Your task to perform on an android device: Open Google Chrome and open the bookmarks view Image 0: 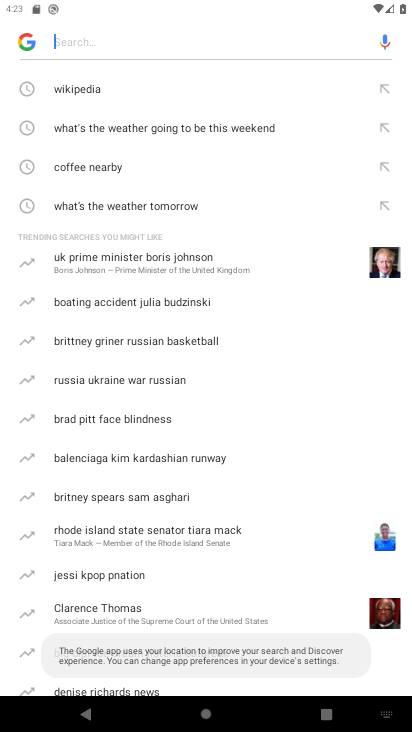
Step 0: press home button
Your task to perform on an android device: Open Google Chrome and open the bookmarks view Image 1: 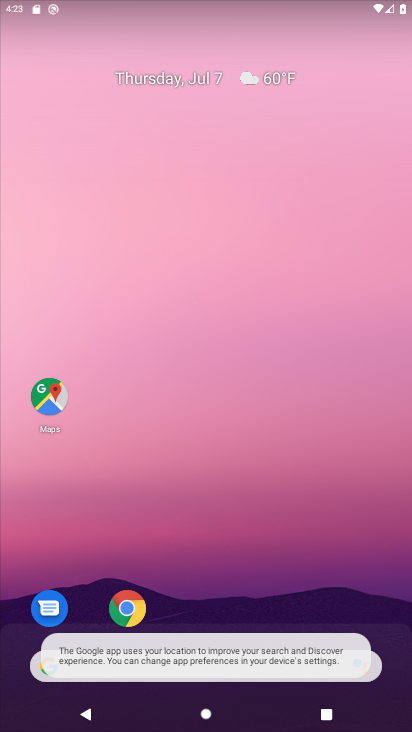
Step 1: drag from (187, 659) to (267, 143)
Your task to perform on an android device: Open Google Chrome and open the bookmarks view Image 2: 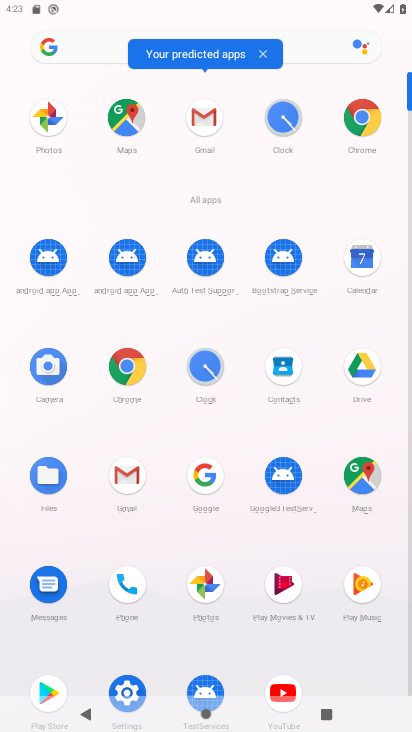
Step 2: click (127, 362)
Your task to perform on an android device: Open Google Chrome and open the bookmarks view Image 3: 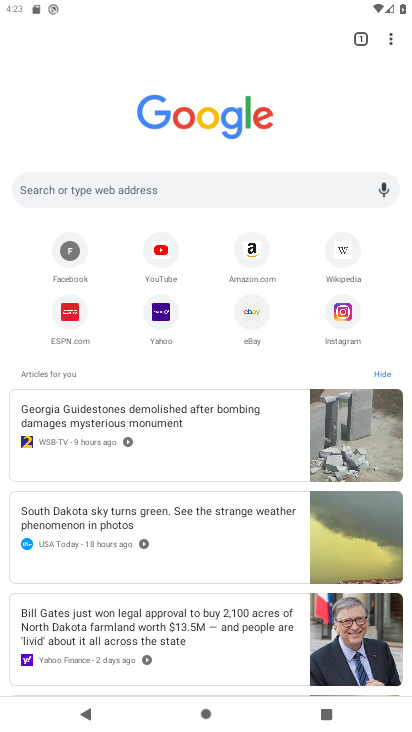
Step 3: task complete